Your task to perform on an android device: What's the weather going to be this weekend? Image 0: 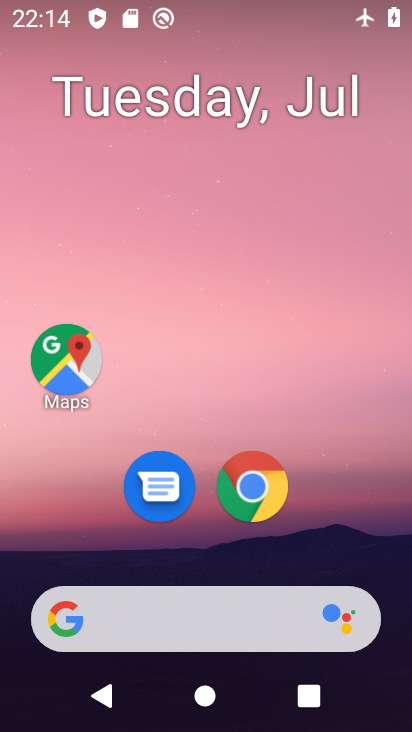
Step 0: press home button
Your task to perform on an android device: What's the weather going to be this weekend? Image 1: 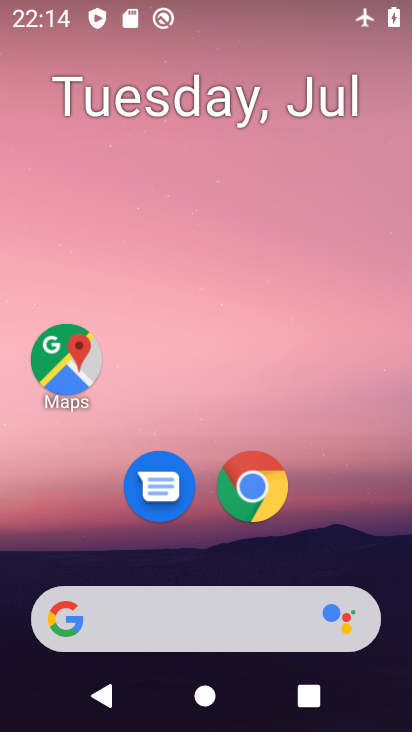
Step 1: click (241, 620)
Your task to perform on an android device: What's the weather going to be this weekend? Image 2: 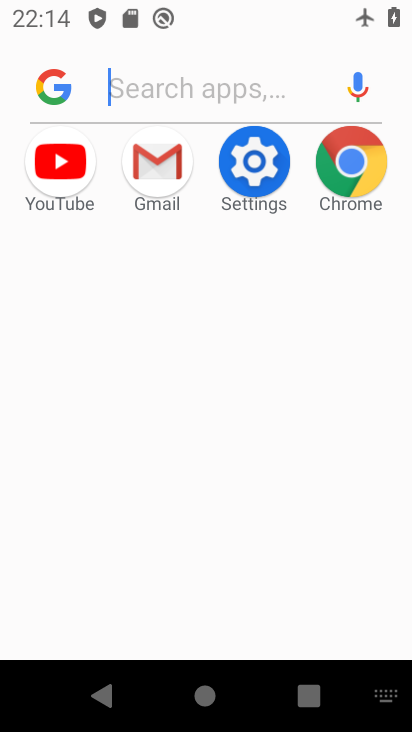
Step 2: type "weather"
Your task to perform on an android device: What's the weather going to be this weekend? Image 3: 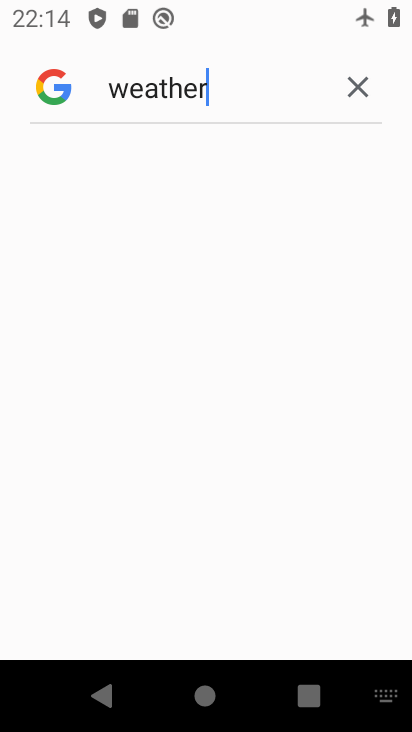
Step 3: task complete